Your task to perform on an android device: Open the Play Movies app and select the watchlist tab. Image 0: 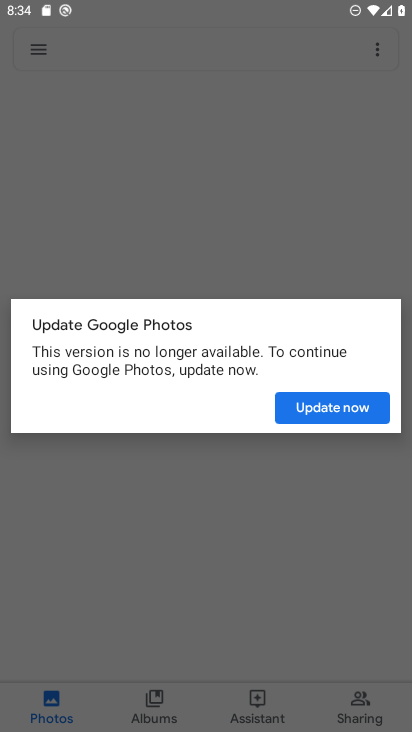
Step 0: press home button
Your task to perform on an android device: Open the Play Movies app and select the watchlist tab. Image 1: 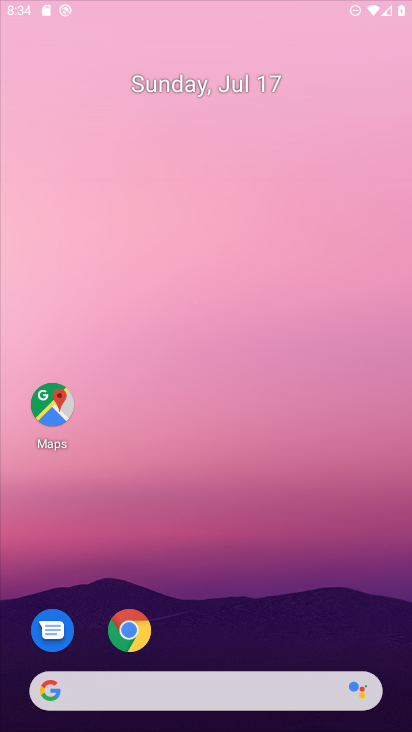
Step 1: drag from (330, 646) to (194, 60)
Your task to perform on an android device: Open the Play Movies app and select the watchlist tab. Image 2: 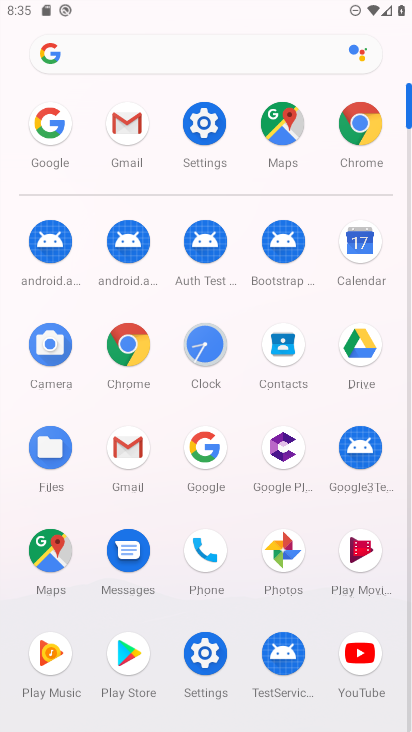
Step 2: click (352, 553)
Your task to perform on an android device: Open the Play Movies app and select the watchlist tab. Image 3: 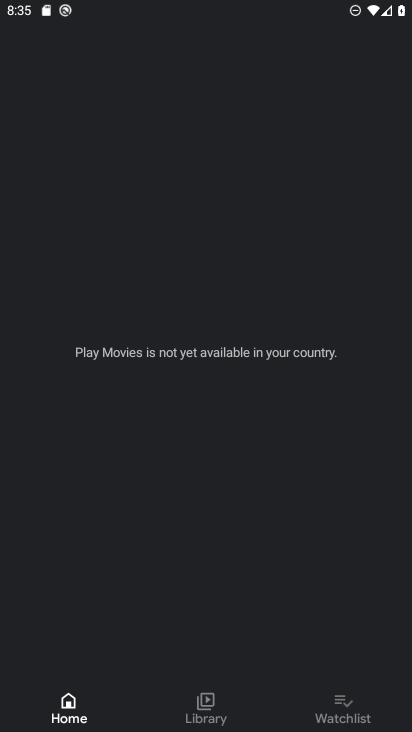
Step 3: click (335, 699)
Your task to perform on an android device: Open the Play Movies app and select the watchlist tab. Image 4: 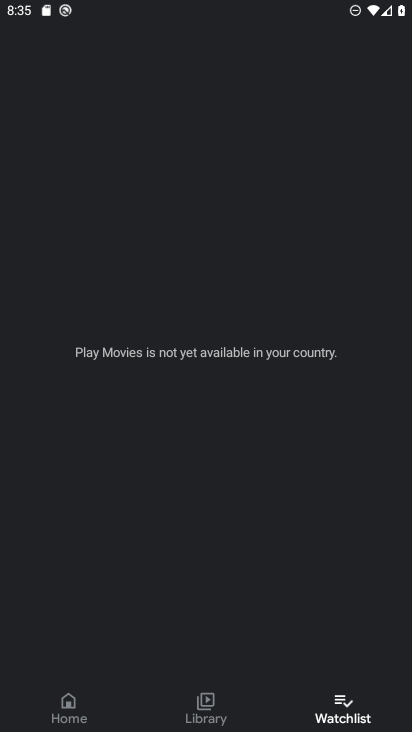
Step 4: task complete